Your task to perform on an android device: Open display settings Image 0: 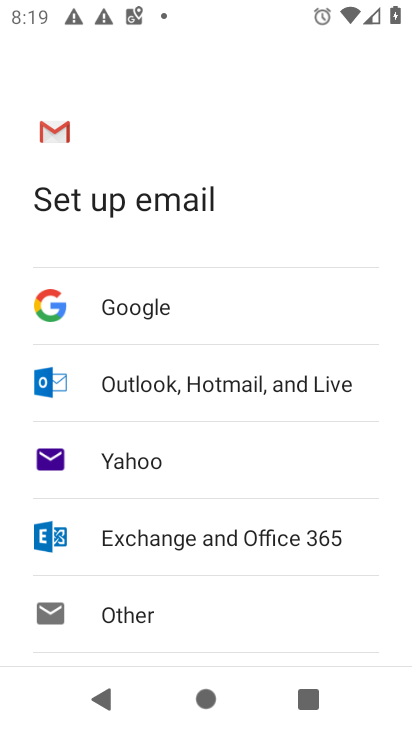
Step 0: press home button
Your task to perform on an android device: Open display settings Image 1: 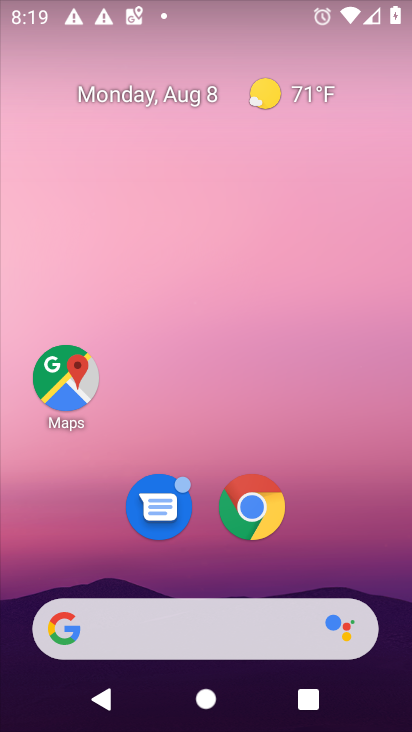
Step 1: drag from (261, 562) to (125, 2)
Your task to perform on an android device: Open display settings Image 2: 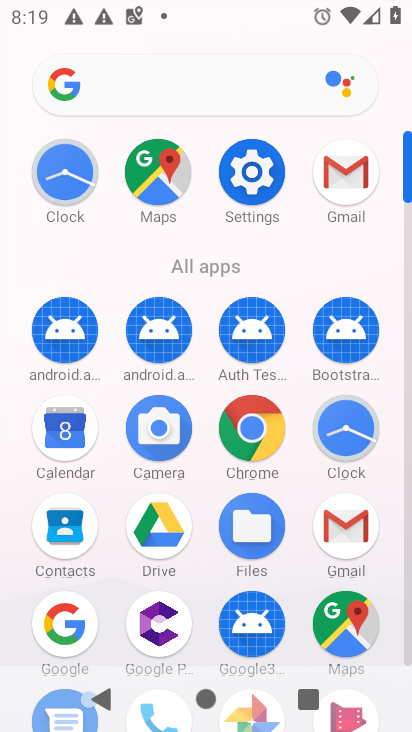
Step 2: click (247, 171)
Your task to perform on an android device: Open display settings Image 3: 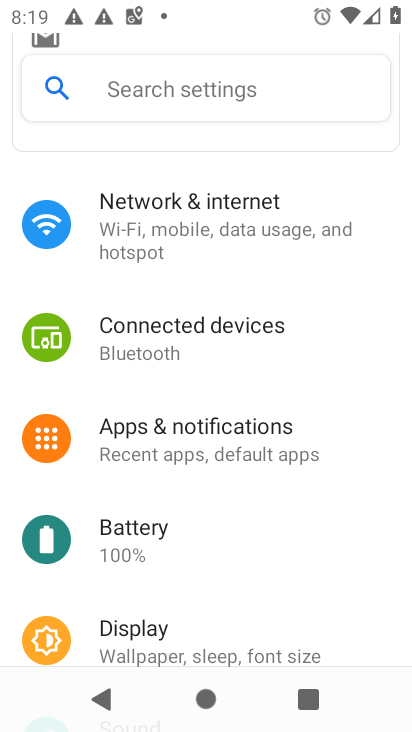
Step 3: click (88, 644)
Your task to perform on an android device: Open display settings Image 4: 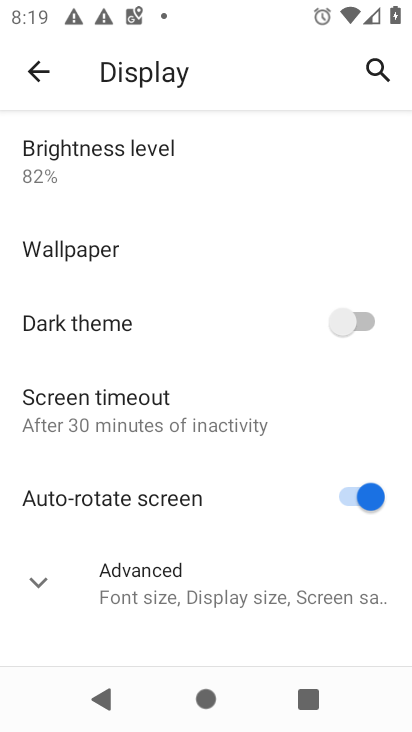
Step 4: click (208, 570)
Your task to perform on an android device: Open display settings Image 5: 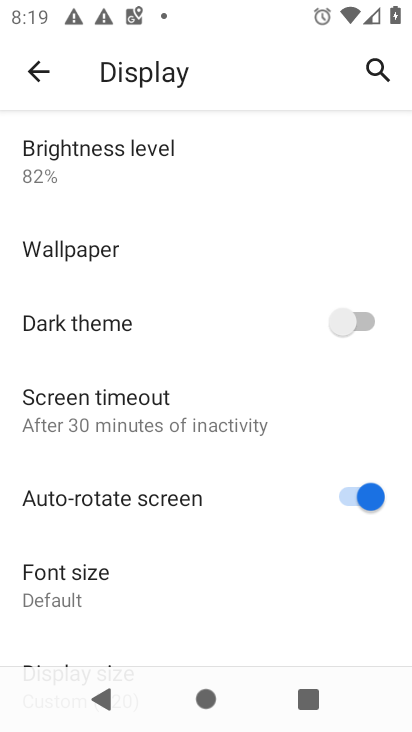
Step 5: task complete